Your task to perform on an android device: toggle airplane mode Image 0: 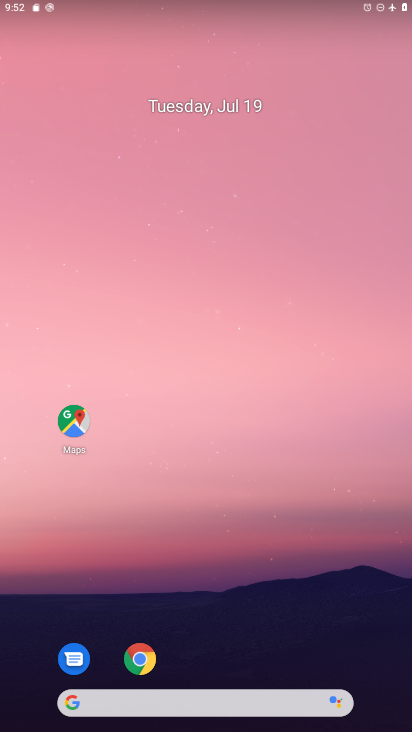
Step 0: drag from (231, 594) to (263, 256)
Your task to perform on an android device: toggle airplane mode Image 1: 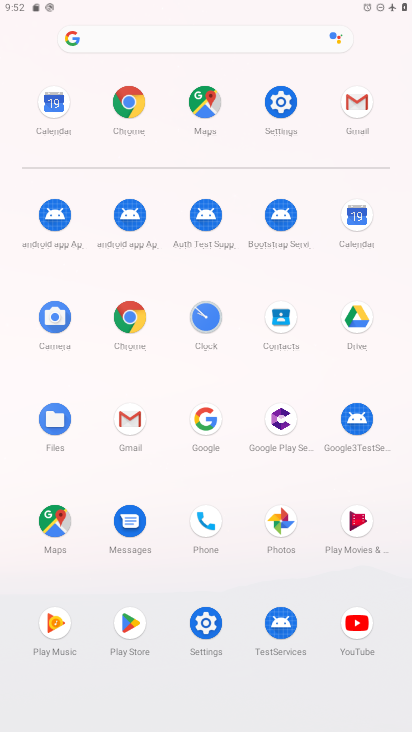
Step 1: click (283, 99)
Your task to perform on an android device: toggle airplane mode Image 2: 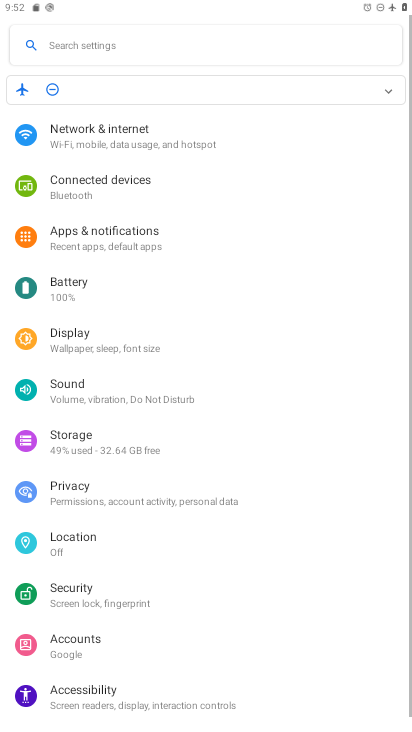
Step 2: click (166, 140)
Your task to perform on an android device: toggle airplane mode Image 3: 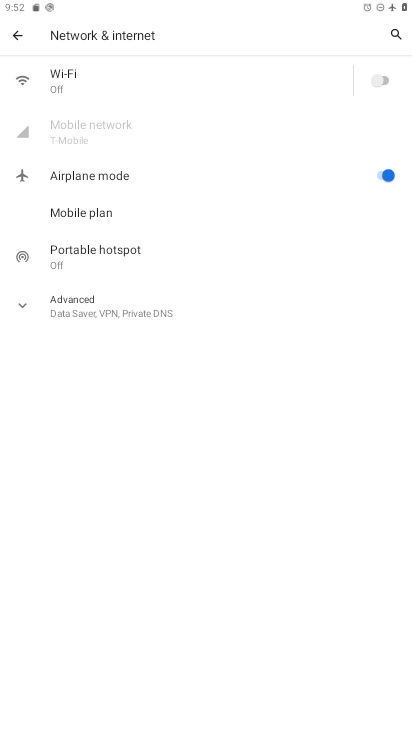
Step 3: click (375, 168)
Your task to perform on an android device: toggle airplane mode Image 4: 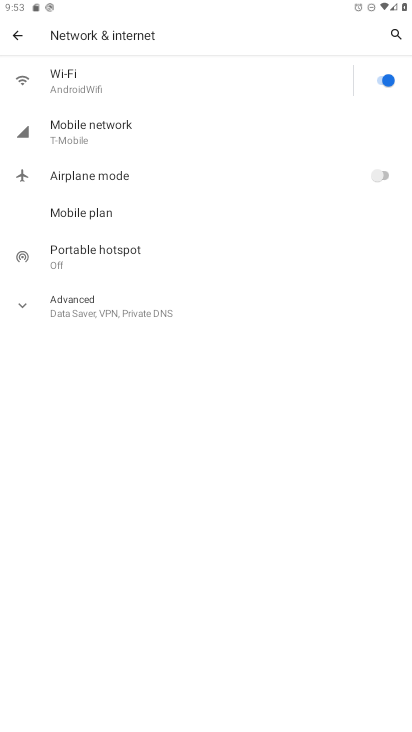
Step 4: task complete